Your task to perform on an android device: toggle wifi Image 0: 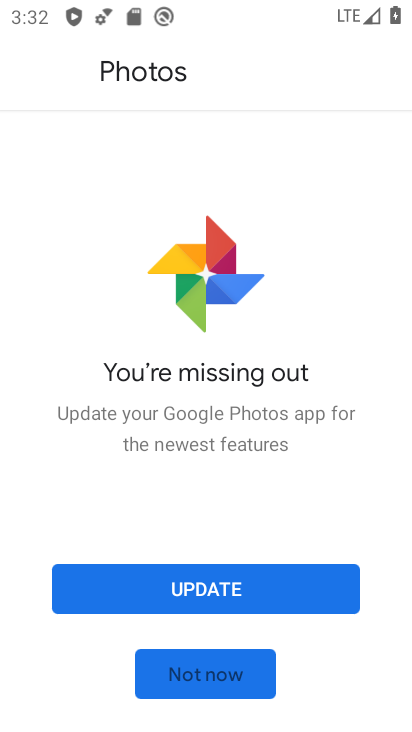
Step 0: press home button
Your task to perform on an android device: toggle wifi Image 1: 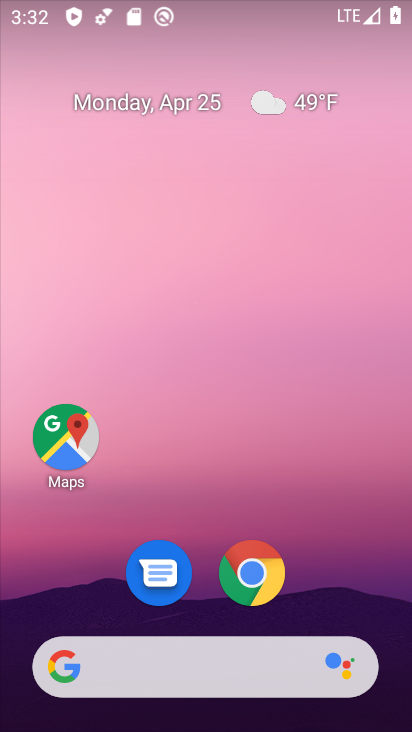
Step 1: drag from (312, 7) to (237, 519)
Your task to perform on an android device: toggle wifi Image 2: 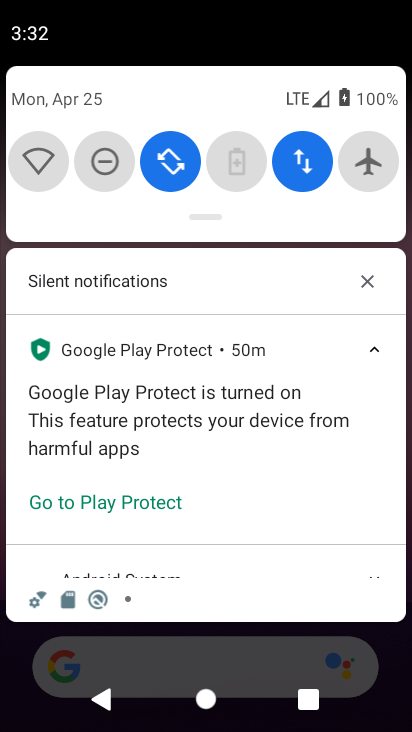
Step 2: click (40, 154)
Your task to perform on an android device: toggle wifi Image 3: 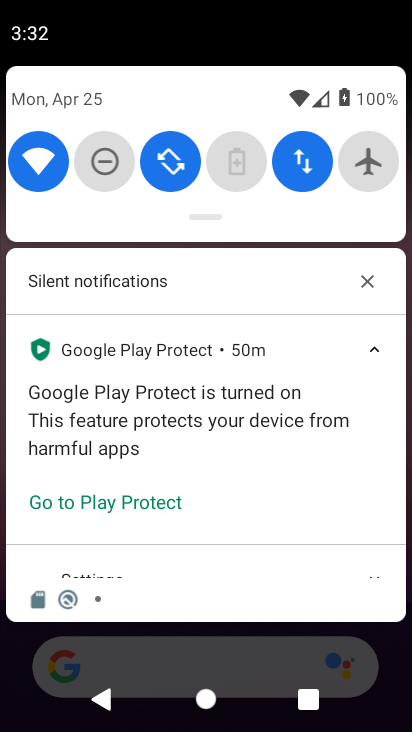
Step 3: task complete